Your task to perform on an android device: Search for vegetarian restaurants on Maps Image 0: 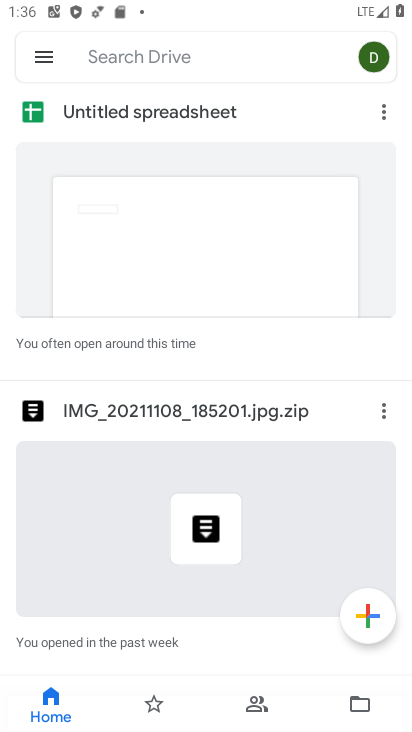
Step 0: press home button
Your task to perform on an android device: Search for vegetarian restaurants on Maps Image 1: 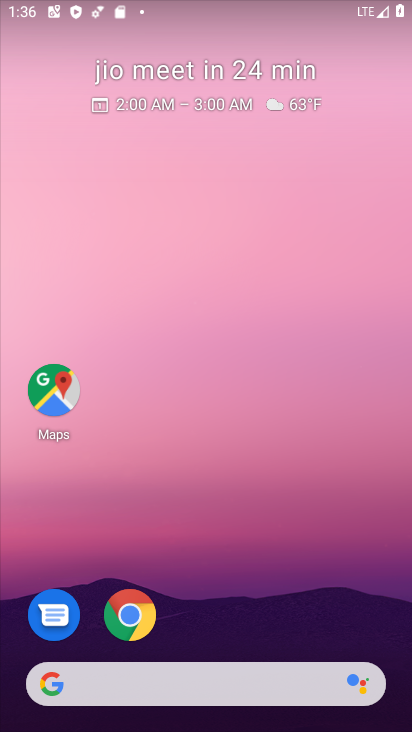
Step 1: click (41, 395)
Your task to perform on an android device: Search for vegetarian restaurants on Maps Image 2: 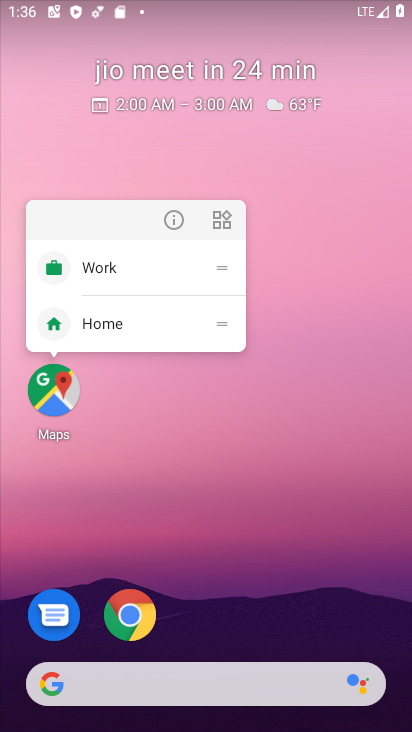
Step 2: click (41, 395)
Your task to perform on an android device: Search for vegetarian restaurants on Maps Image 3: 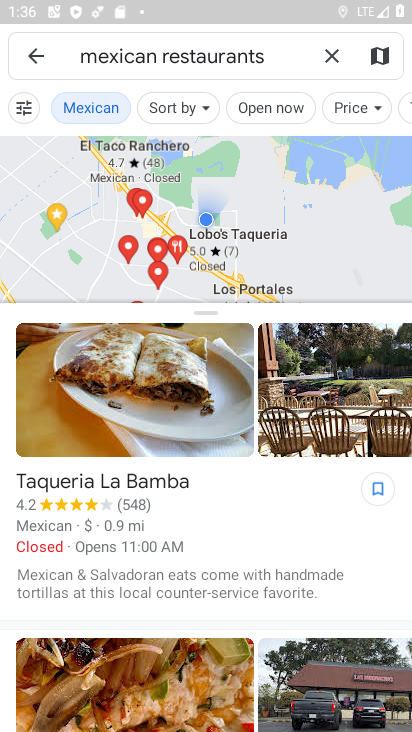
Step 3: click (342, 54)
Your task to perform on an android device: Search for vegetarian restaurants on Maps Image 4: 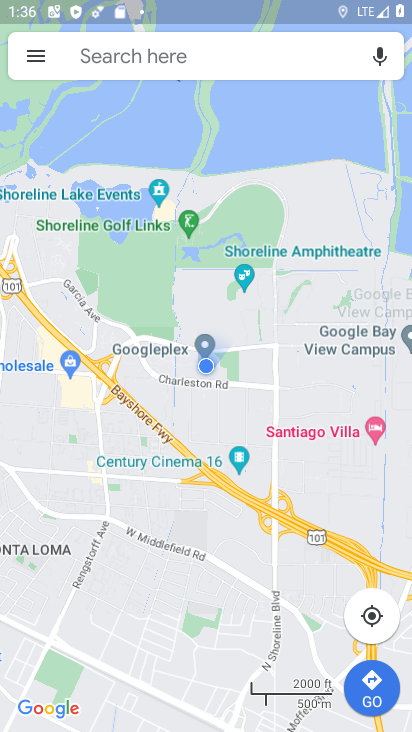
Step 4: click (238, 45)
Your task to perform on an android device: Search for vegetarian restaurants on Maps Image 5: 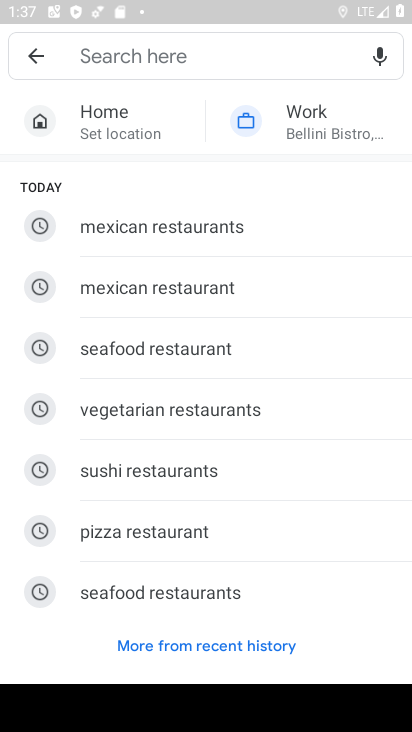
Step 5: type "vegetarian restaurants"
Your task to perform on an android device: Search for vegetarian restaurants on Maps Image 6: 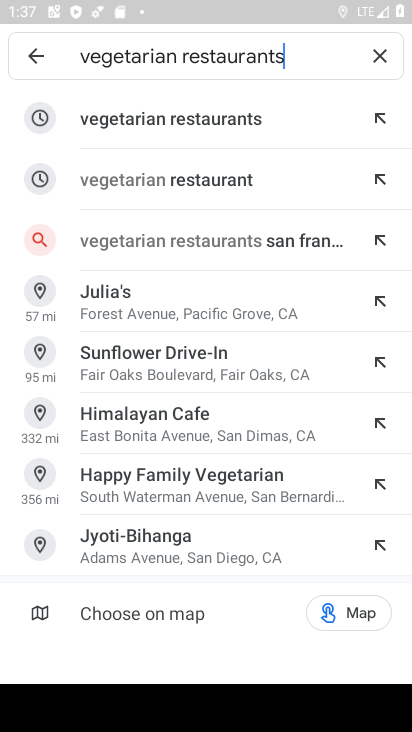
Step 6: click (253, 110)
Your task to perform on an android device: Search for vegetarian restaurants on Maps Image 7: 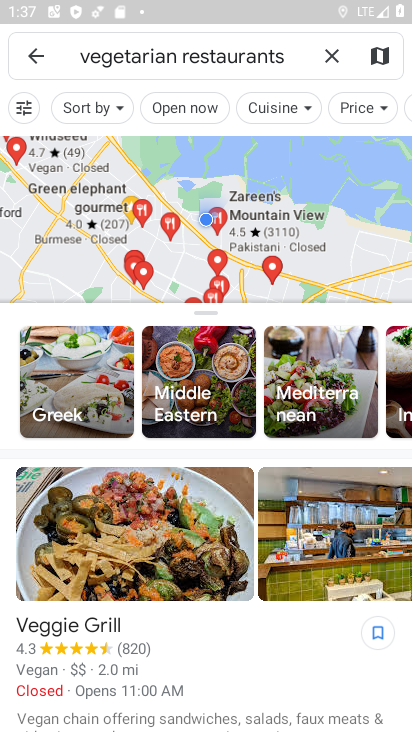
Step 7: task complete